Your task to perform on an android device: Play the last video I watched on Youtube Image 0: 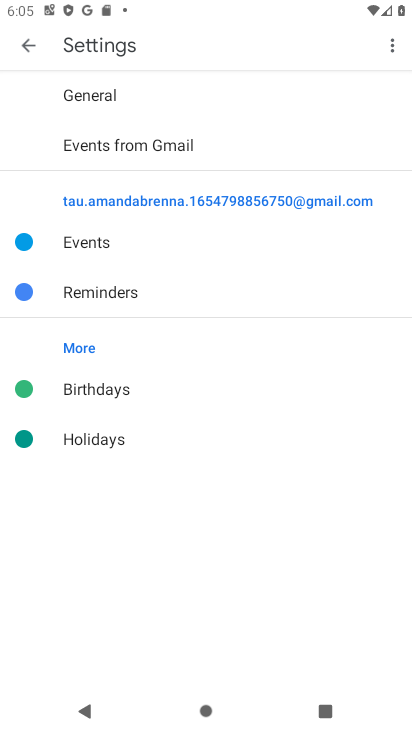
Step 0: press home button
Your task to perform on an android device: Play the last video I watched on Youtube Image 1: 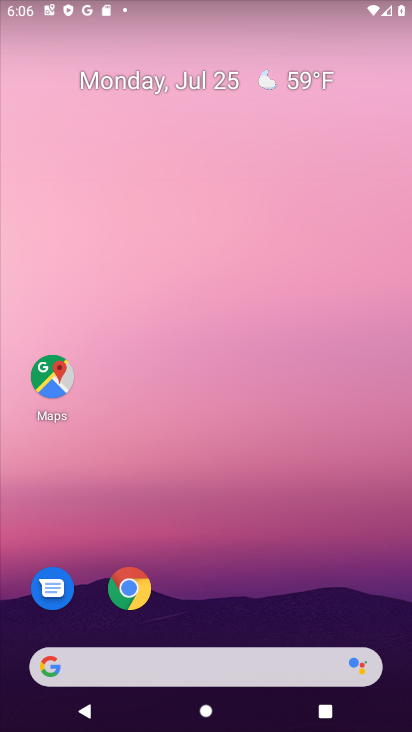
Step 1: drag from (284, 553) to (329, 286)
Your task to perform on an android device: Play the last video I watched on Youtube Image 2: 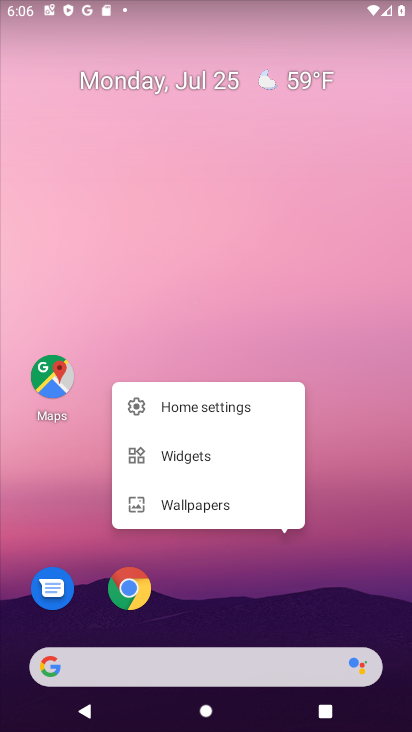
Step 2: click (316, 505)
Your task to perform on an android device: Play the last video I watched on Youtube Image 3: 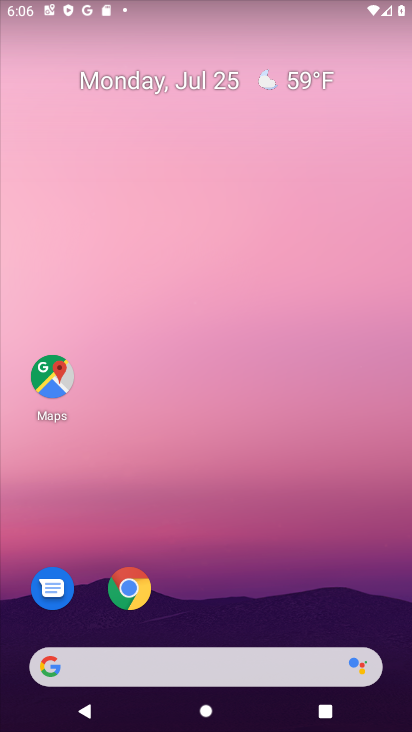
Step 3: drag from (316, 505) to (347, 276)
Your task to perform on an android device: Play the last video I watched on Youtube Image 4: 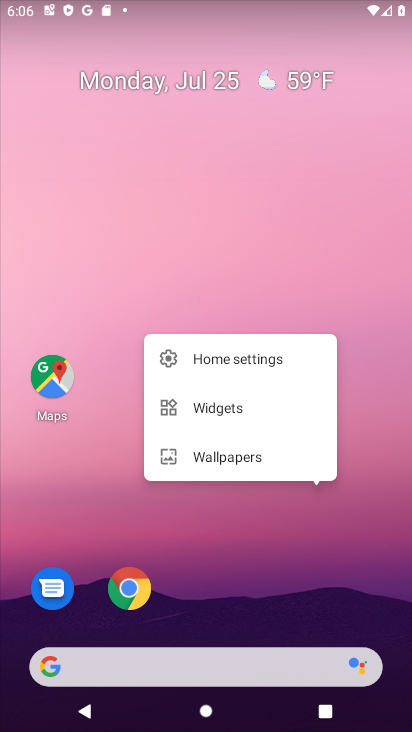
Step 4: click (273, 559)
Your task to perform on an android device: Play the last video I watched on Youtube Image 5: 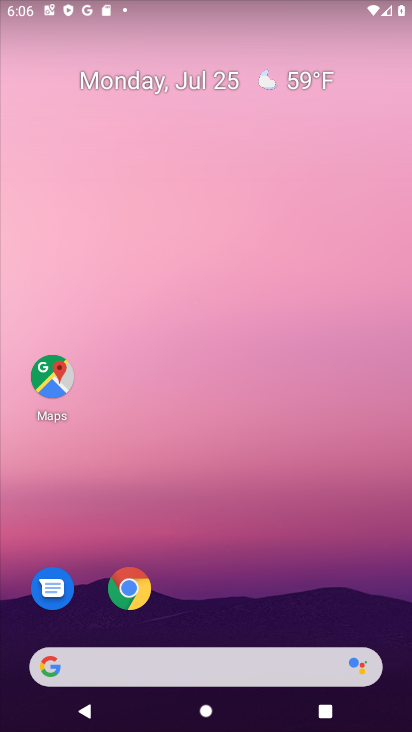
Step 5: drag from (273, 559) to (291, 201)
Your task to perform on an android device: Play the last video I watched on Youtube Image 6: 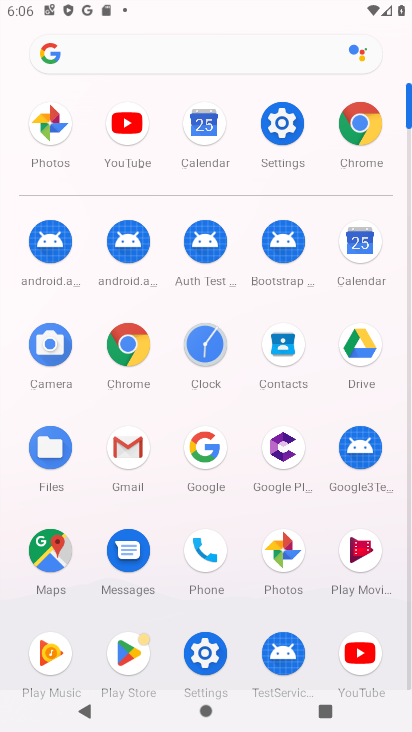
Step 6: click (369, 668)
Your task to perform on an android device: Play the last video I watched on Youtube Image 7: 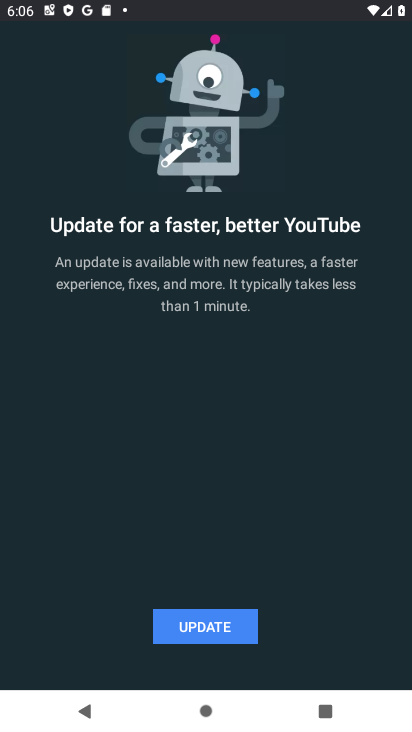
Step 7: task complete